Your task to perform on an android device: open a new tab in the chrome app Image 0: 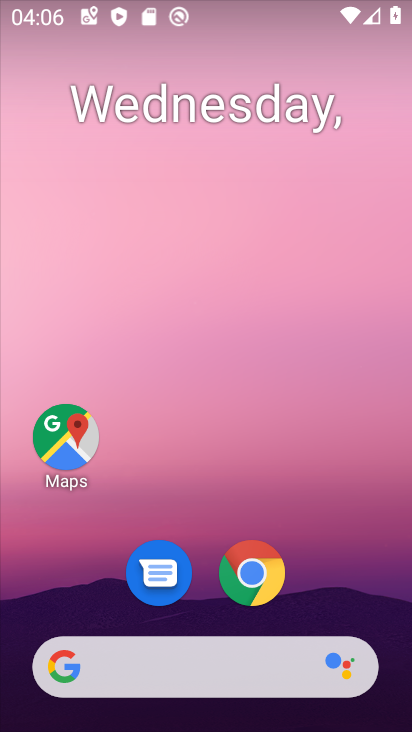
Step 0: click (254, 574)
Your task to perform on an android device: open a new tab in the chrome app Image 1: 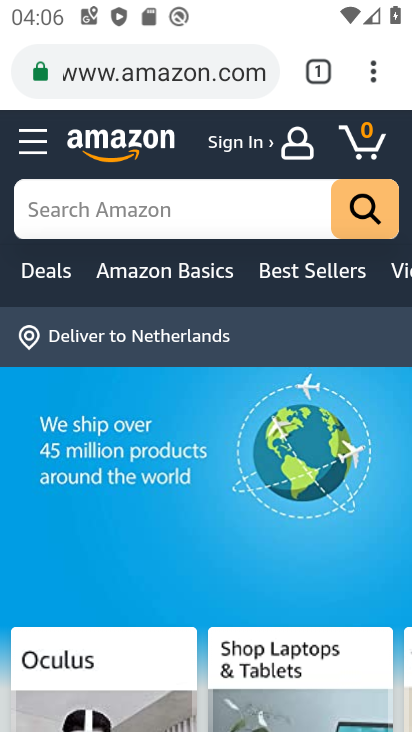
Step 1: click (373, 74)
Your task to perform on an android device: open a new tab in the chrome app Image 2: 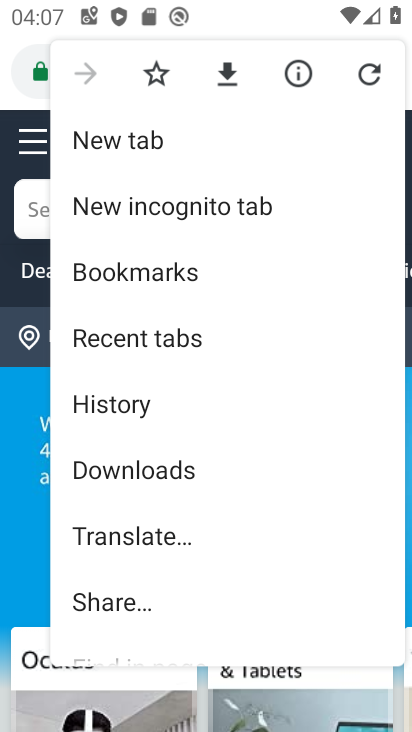
Step 2: click (123, 142)
Your task to perform on an android device: open a new tab in the chrome app Image 3: 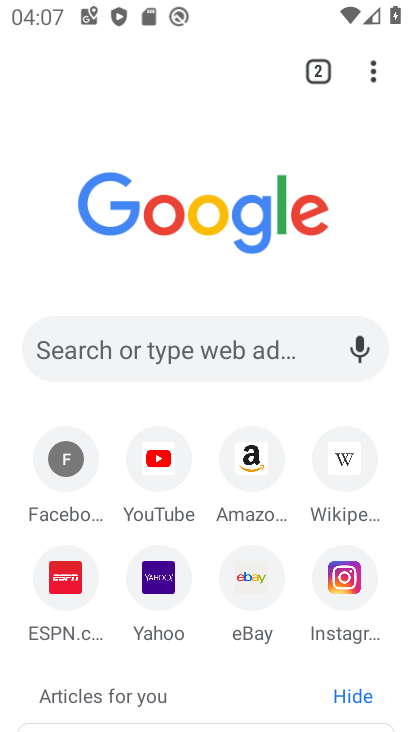
Step 3: task complete